Your task to perform on an android device: Go to CNN.com Image 0: 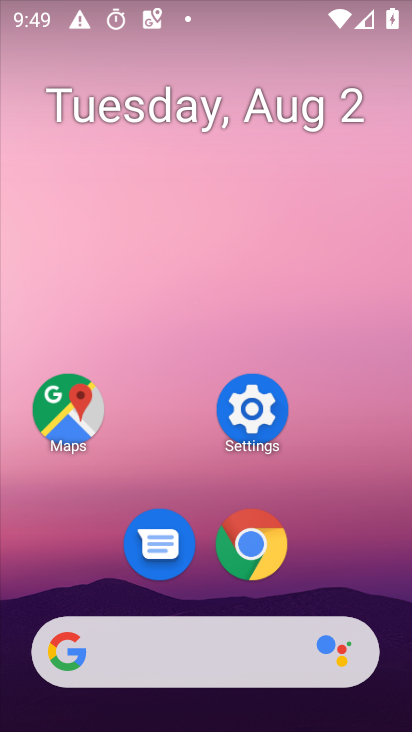
Step 0: click (263, 538)
Your task to perform on an android device: Go to CNN.com Image 1: 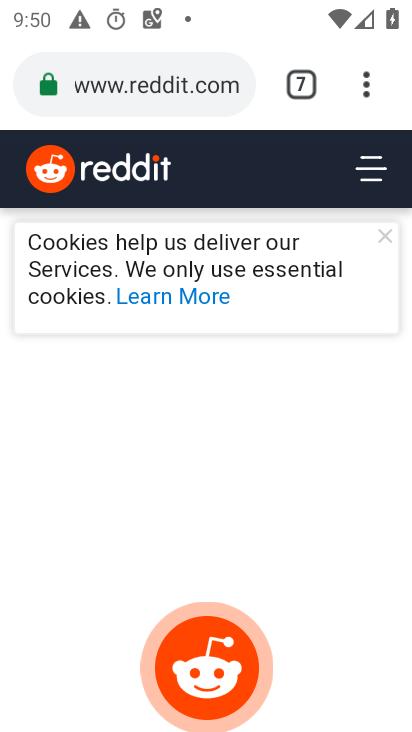
Step 1: drag from (361, 79) to (131, 173)
Your task to perform on an android device: Go to CNN.com Image 2: 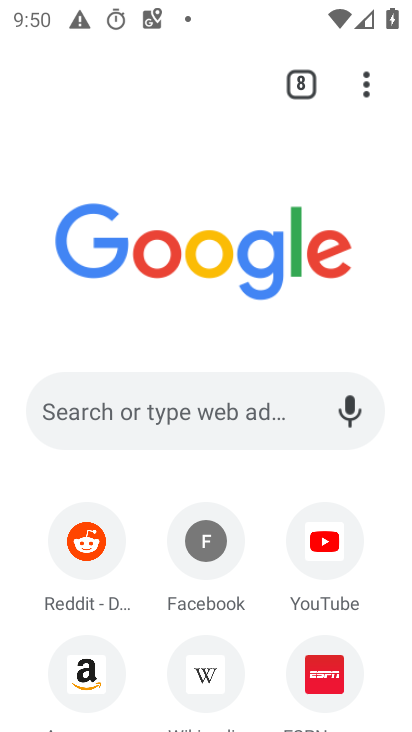
Step 2: click (215, 419)
Your task to perform on an android device: Go to CNN.com Image 3: 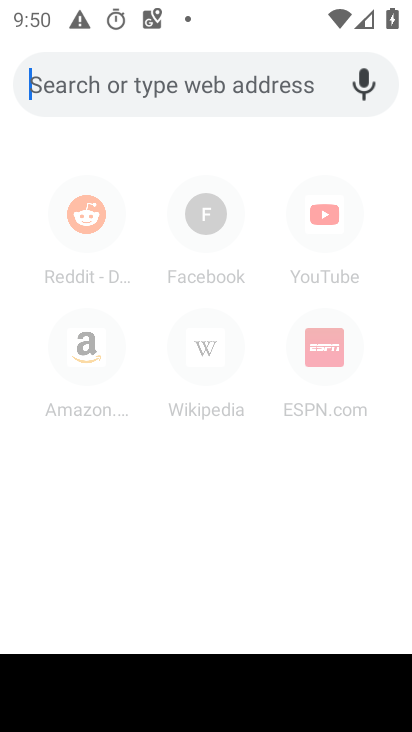
Step 3: type "CNN.com"
Your task to perform on an android device: Go to CNN.com Image 4: 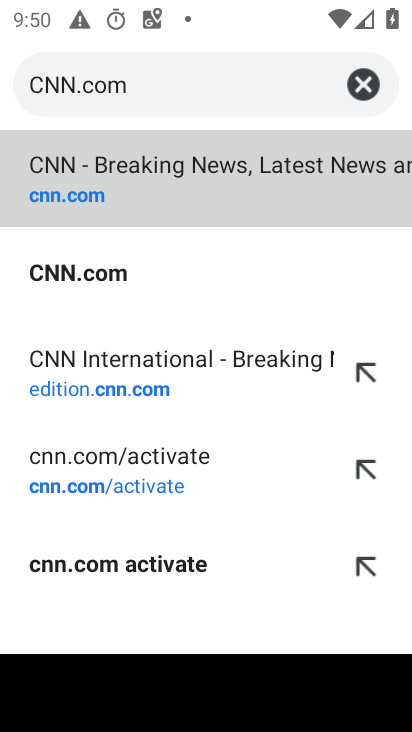
Step 4: click (180, 159)
Your task to perform on an android device: Go to CNN.com Image 5: 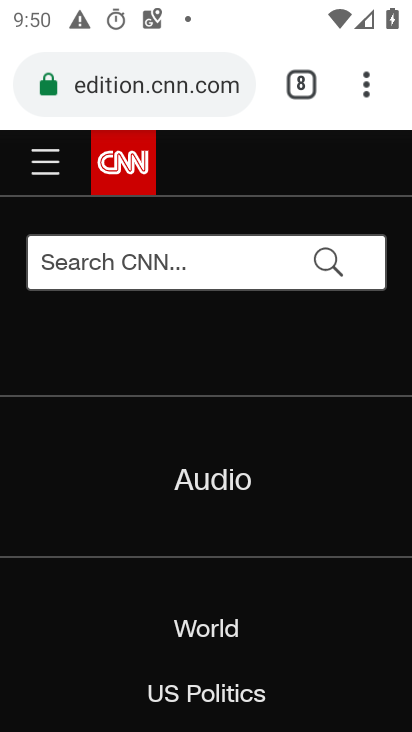
Step 5: task complete